Your task to perform on an android device: refresh tabs in the chrome app Image 0: 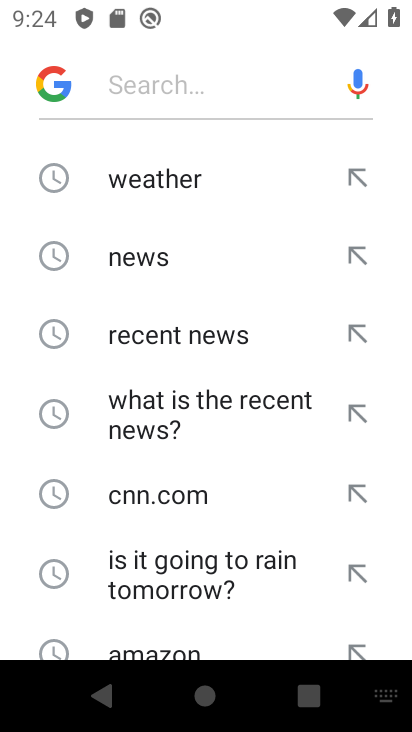
Step 0: press home button
Your task to perform on an android device: refresh tabs in the chrome app Image 1: 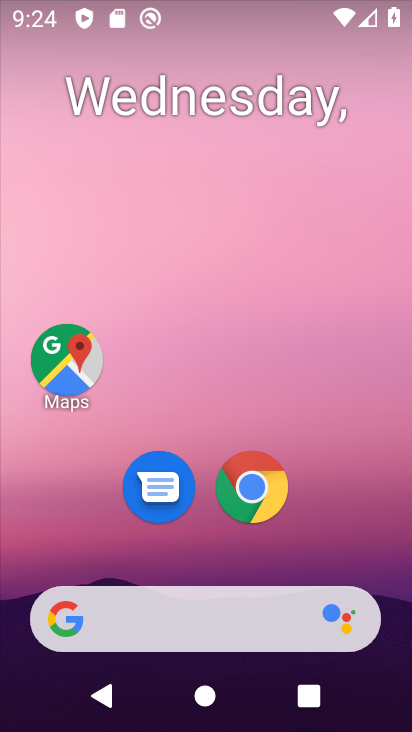
Step 1: click (270, 463)
Your task to perform on an android device: refresh tabs in the chrome app Image 2: 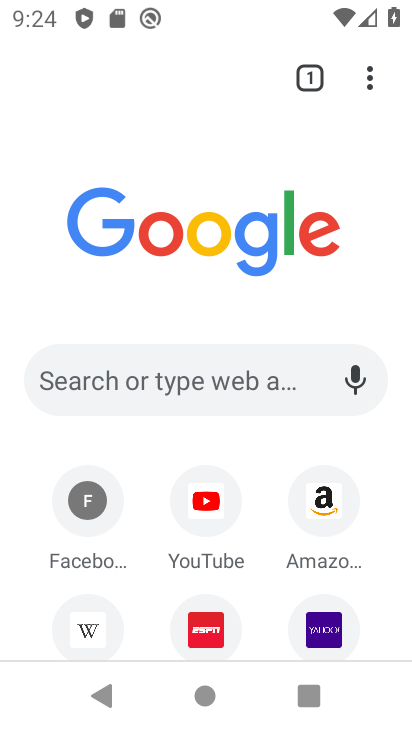
Step 2: click (365, 82)
Your task to perform on an android device: refresh tabs in the chrome app Image 3: 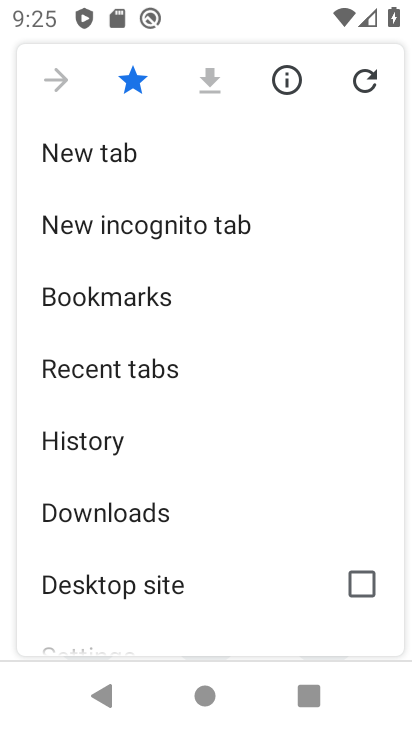
Step 3: click (365, 82)
Your task to perform on an android device: refresh tabs in the chrome app Image 4: 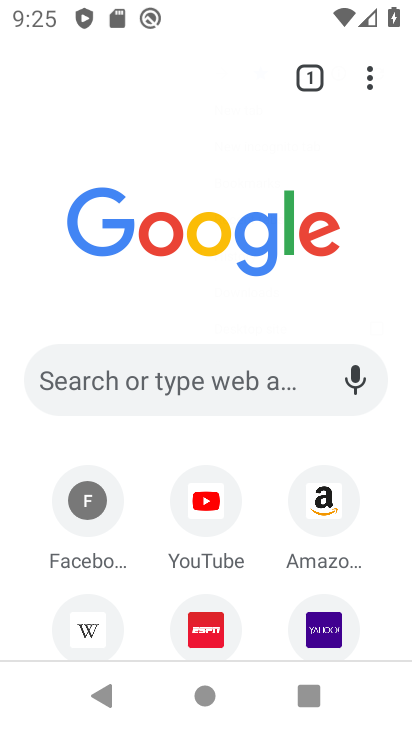
Step 4: click (365, 82)
Your task to perform on an android device: refresh tabs in the chrome app Image 5: 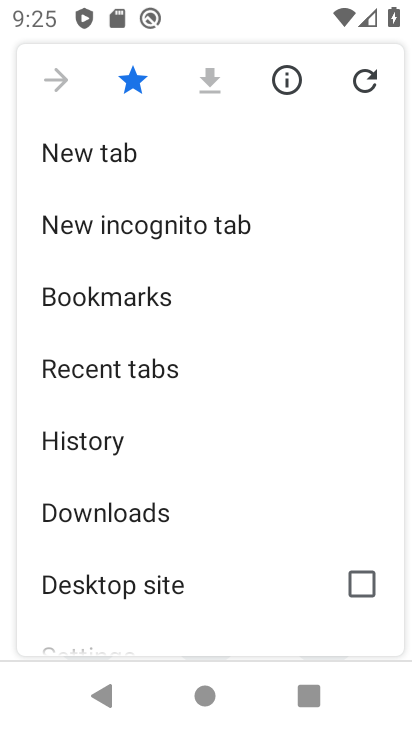
Step 5: click (353, 77)
Your task to perform on an android device: refresh tabs in the chrome app Image 6: 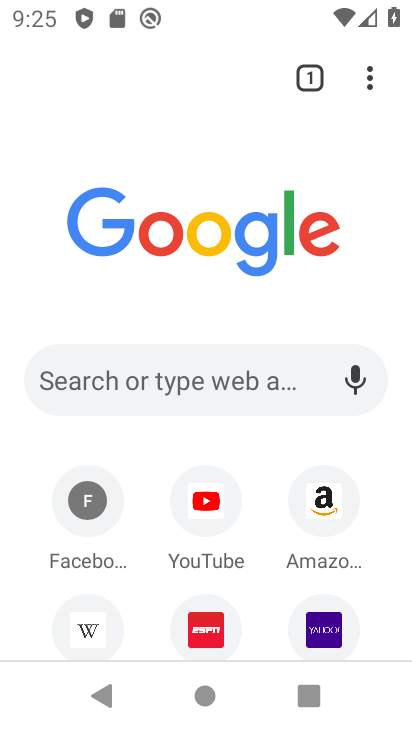
Step 6: task complete